Your task to perform on an android device: turn pop-ups on in chrome Image 0: 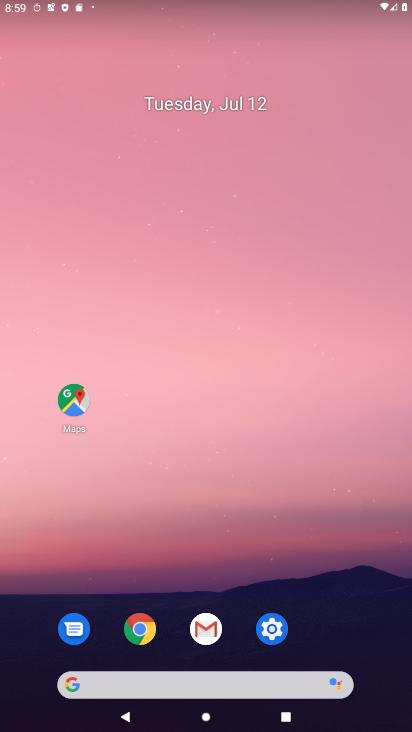
Step 0: press home button
Your task to perform on an android device: turn pop-ups on in chrome Image 1: 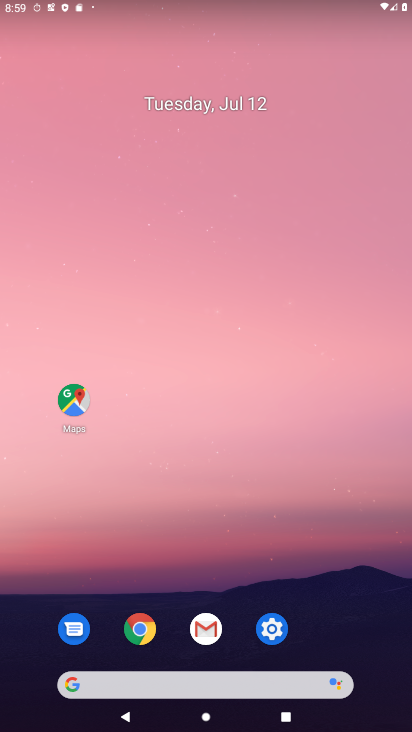
Step 1: click (149, 637)
Your task to perform on an android device: turn pop-ups on in chrome Image 2: 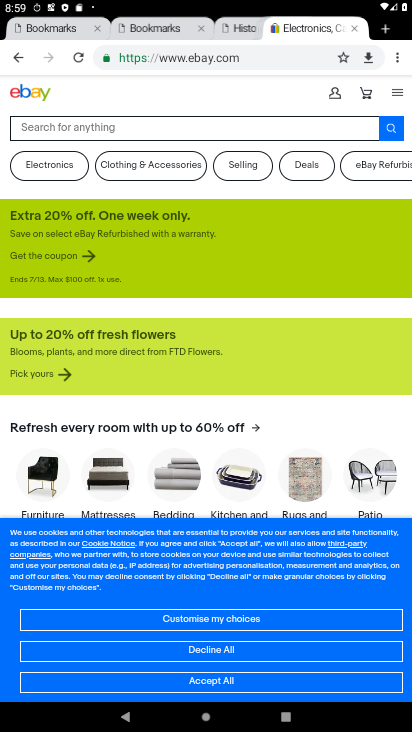
Step 2: click (392, 59)
Your task to perform on an android device: turn pop-ups on in chrome Image 3: 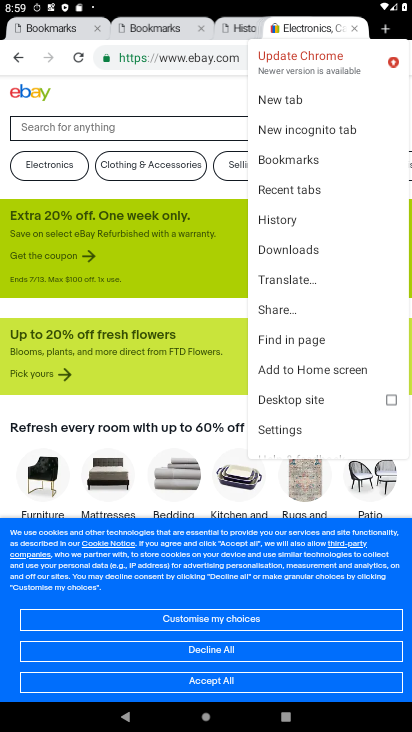
Step 3: click (280, 428)
Your task to perform on an android device: turn pop-ups on in chrome Image 4: 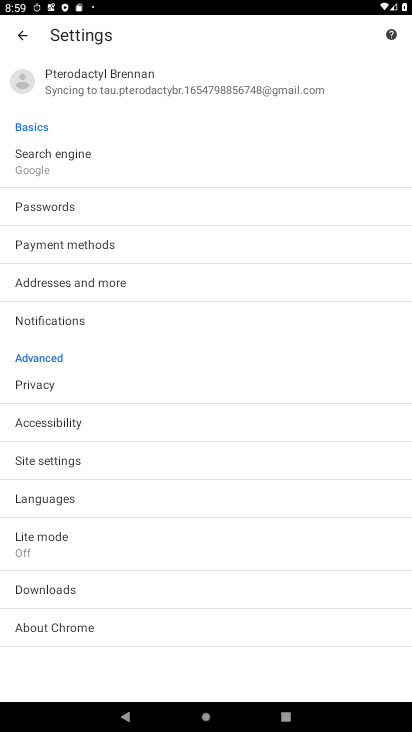
Step 4: click (66, 468)
Your task to perform on an android device: turn pop-ups on in chrome Image 5: 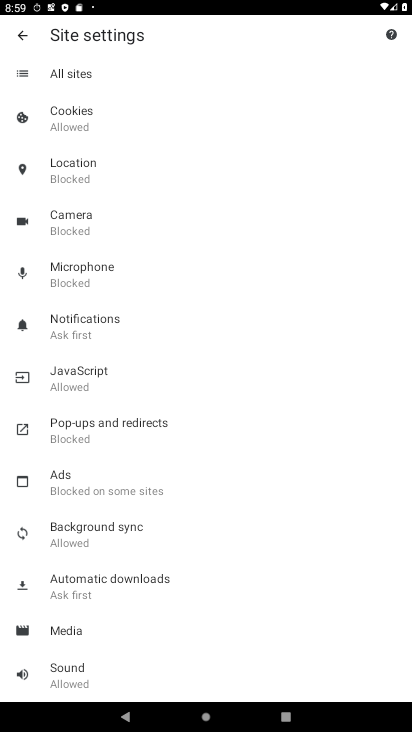
Step 5: click (127, 422)
Your task to perform on an android device: turn pop-ups on in chrome Image 6: 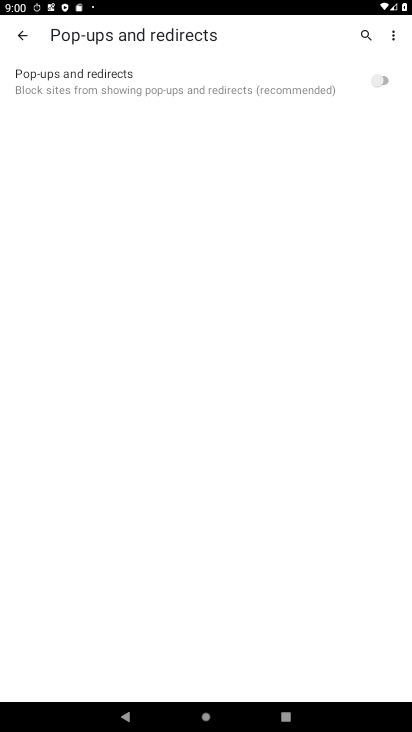
Step 6: click (374, 77)
Your task to perform on an android device: turn pop-ups on in chrome Image 7: 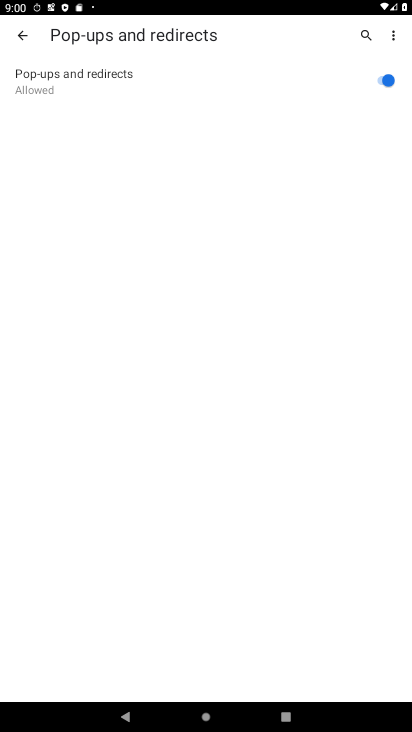
Step 7: task complete